Your task to perform on an android device: open app "Adobe Acrobat Reader: Edit PDF" (install if not already installed) and go to login screen Image 0: 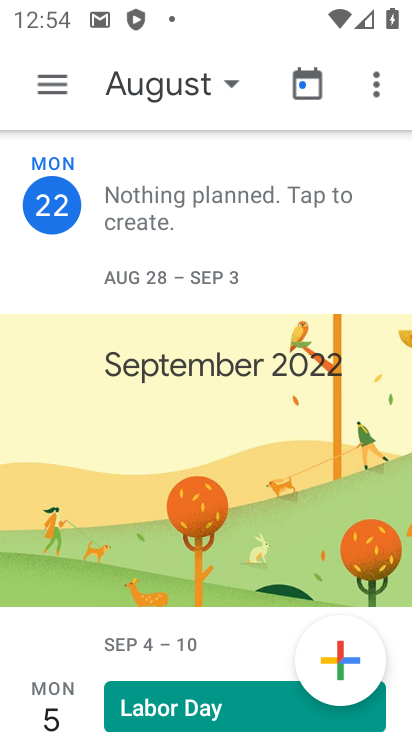
Step 0: press back button
Your task to perform on an android device: open app "Adobe Acrobat Reader: Edit PDF" (install if not already installed) and go to login screen Image 1: 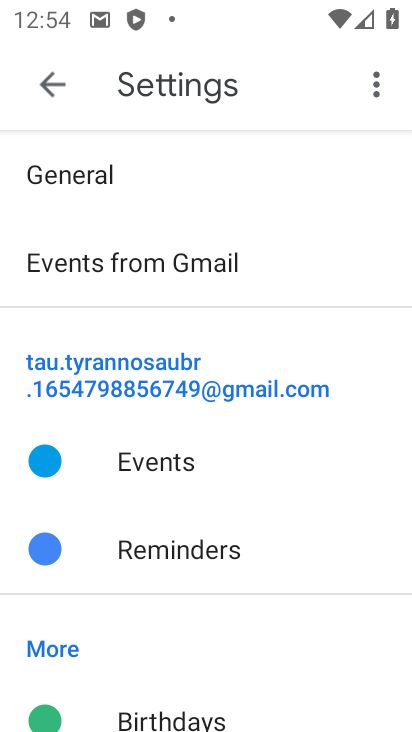
Step 1: press back button
Your task to perform on an android device: open app "Adobe Acrobat Reader: Edit PDF" (install if not already installed) and go to login screen Image 2: 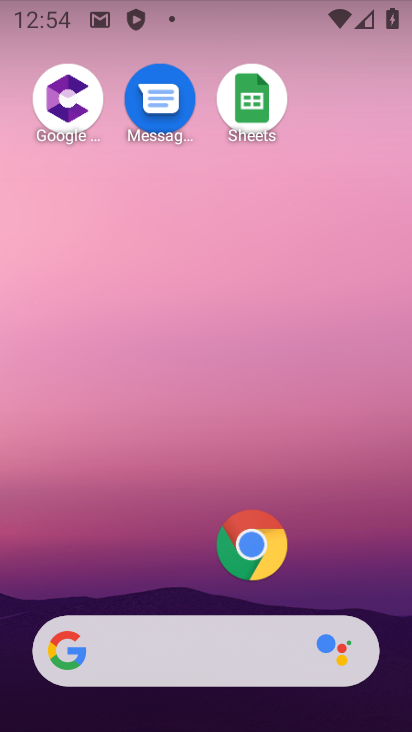
Step 2: drag from (151, 529) to (275, 0)
Your task to perform on an android device: open app "Adobe Acrobat Reader: Edit PDF" (install if not already installed) and go to login screen Image 3: 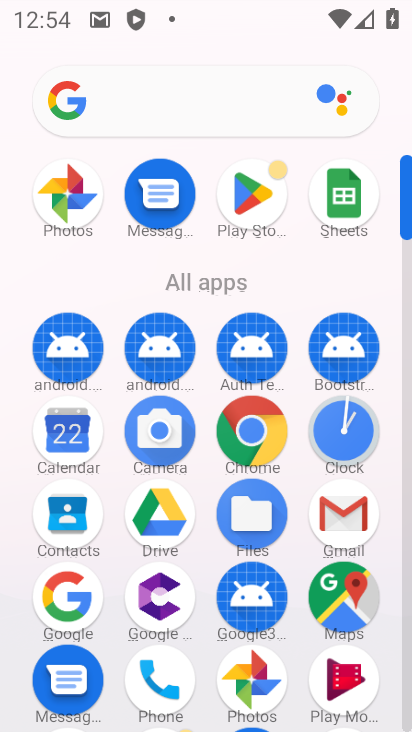
Step 3: click (249, 184)
Your task to perform on an android device: open app "Adobe Acrobat Reader: Edit PDF" (install if not already installed) and go to login screen Image 4: 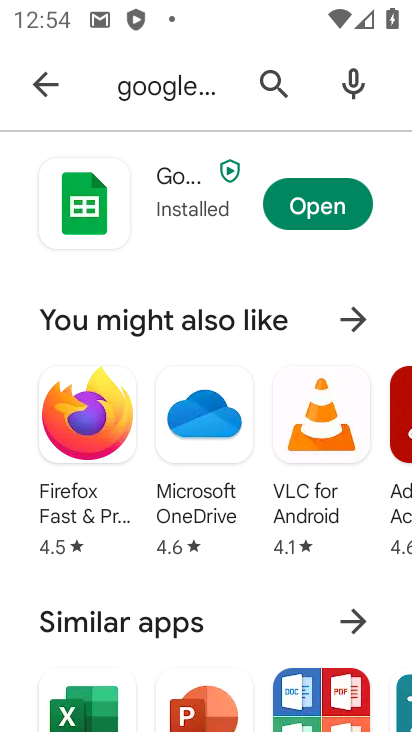
Step 4: click (269, 84)
Your task to perform on an android device: open app "Adobe Acrobat Reader: Edit PDF" (install if not already installed) and go to login screen Image 5: 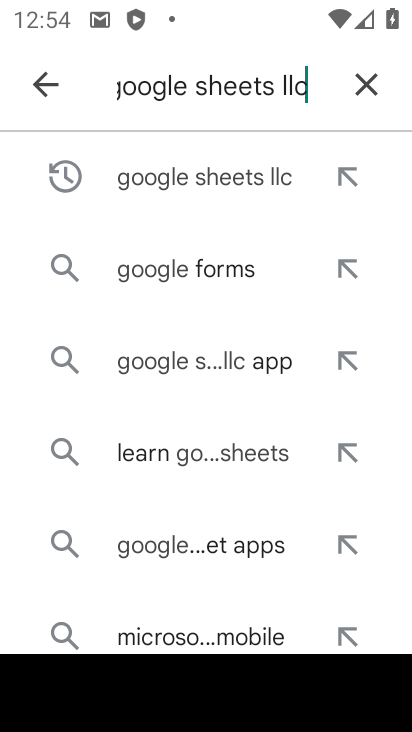
Step 5: click (361, 82)
Your task to perform on an android device: open app "Adobe Acrobat Reader: Edit PDF" (install if not already installed) and go to login screen Image 6: 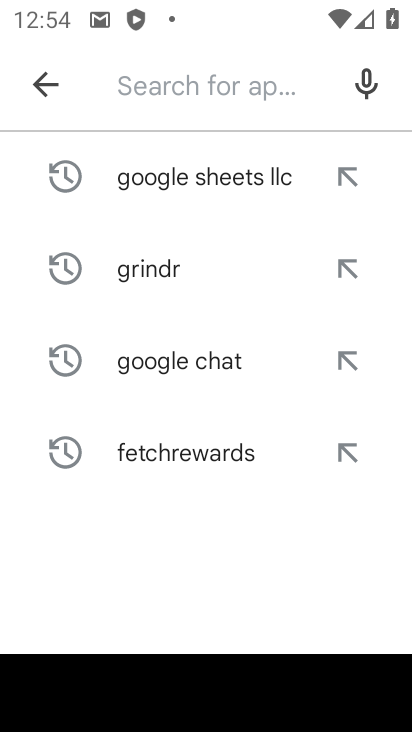
Step 6: click (194, 94)
Your task to perform on an android device: open app "Adobe Acrobat Reader: Edit PDF" (install if not already installed) and go to login screen Image 7: 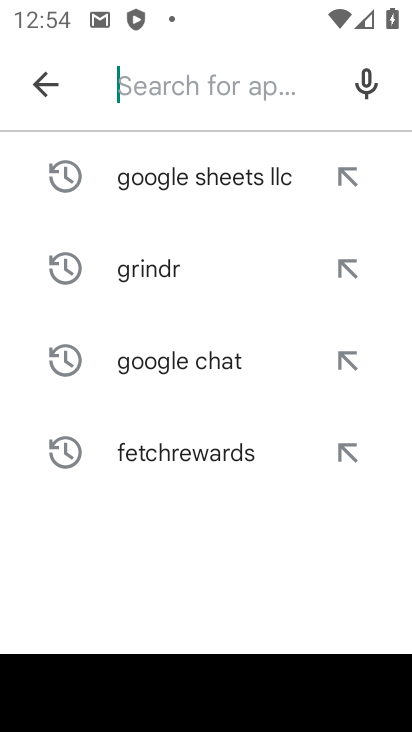
Step 7: click (169, 82)
Your task to perform on an android device: open app "Adobe Acrobat Reader: Edit PDF" (install if not already installed) and go to login screen Image 8: 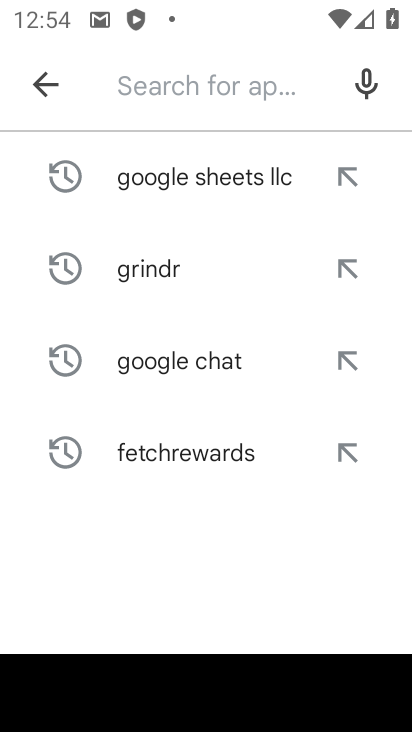
Step 8: type "Adobe Acrobat Reader"
Your task to perform on an android device: open app "Adobe Acrobat Reader: Edit PDF" (install if not already installed) and go to login screen Image 9: 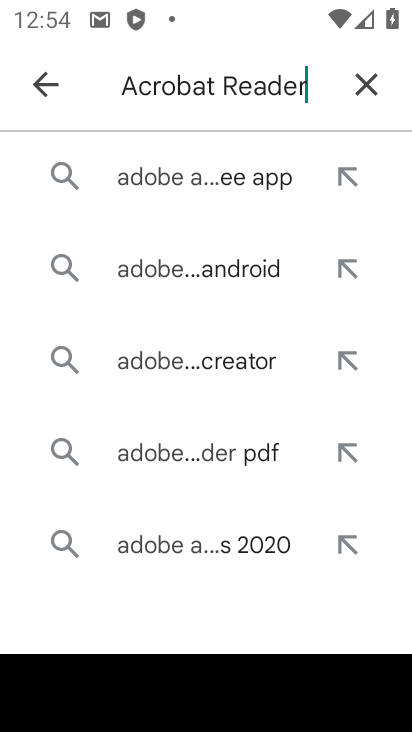
Step 9: click (196, 179)
Your task to perform on an android device: open app "Adobe Acrobat Reader: Edit PDF" (install if not already installed) and go to login screen Image 10: 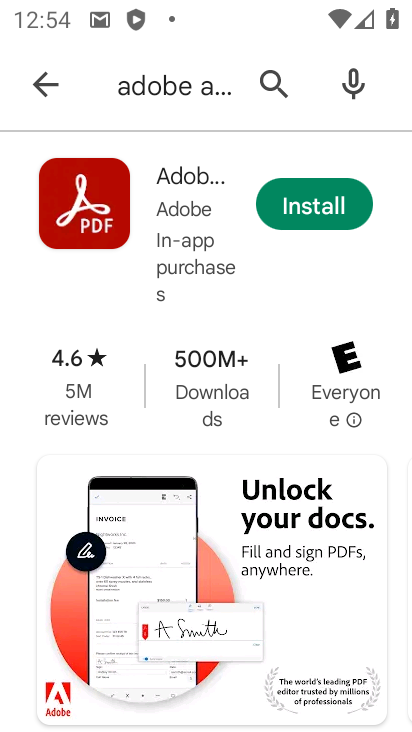
Step 10: click (327, 190)
Your task to perform on an android device: open app "Adobe Acrobat Reader: Edit PDF" (install if not already installed) and go to login screen Image 11: 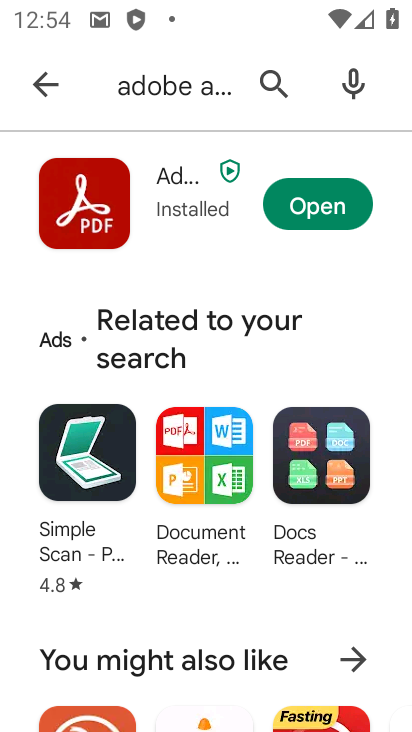
Step 11: click (312, 202)
Your task to perform on an android device: open app "Adobe Acrobat Reader: Edit PDF" (install if not already installed) and go to login screen Image 12: 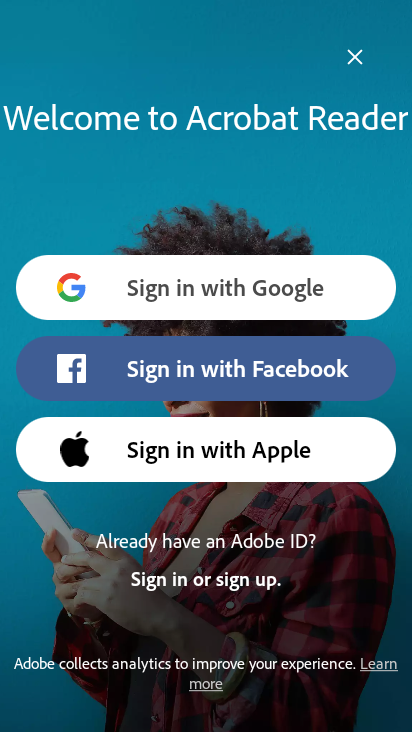
Step 12: task complete